Your task to perform on an android device: open chrome and create a bookmark for the current page Image 0: 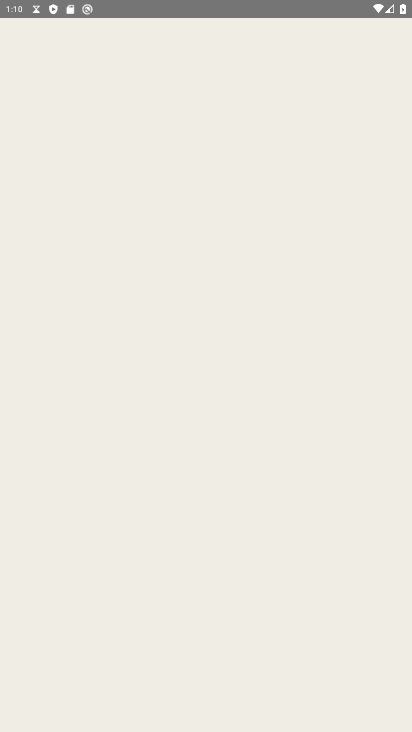
Step 0: drag from (314, 322) to (266, 2)
Your task to perform on an android device: open chrome and create a bookmark for the current page Image 1: 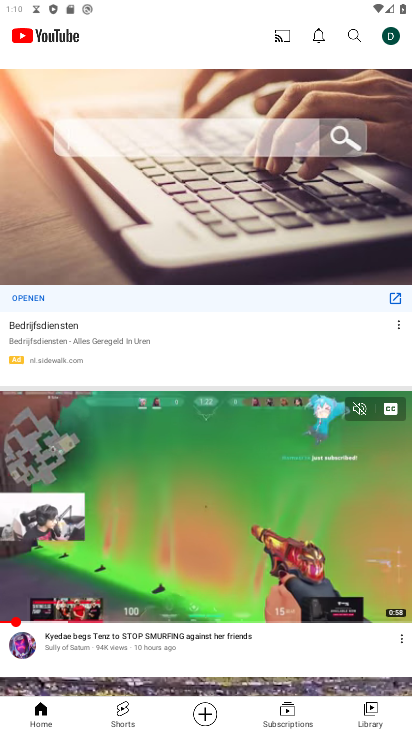
Step 1: press home button
Your task to perform on an android device: open chrome and create a bookmark for the current page Image 2: 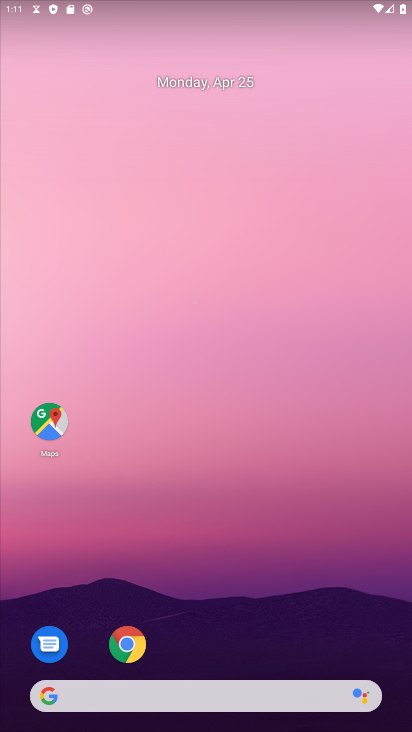
Step 2: click (126, 651)
Your task to perform on an android device: open chrome and create a bookmark for the current page Image 3: 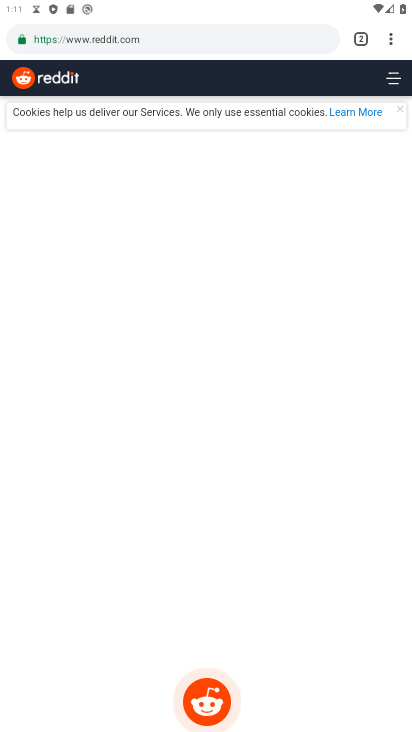
Step 3: click (391, 40)
Your task to perform on an android device: open chrome and create a bookmark for the current page Image 4: 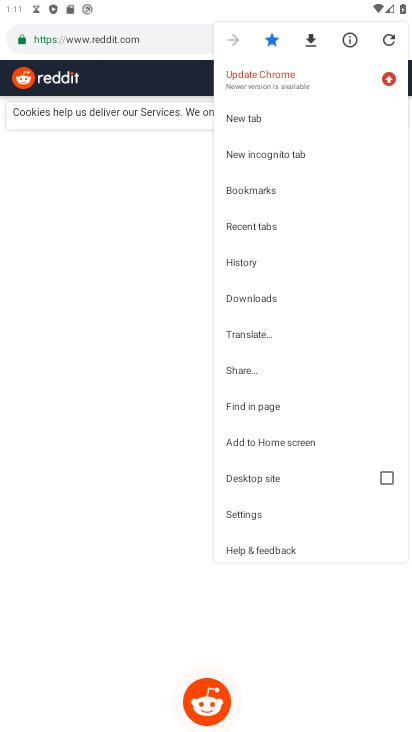
Step 4: task complete